Your task to perform on an android device: snooze an email in the gmail app Image 0: 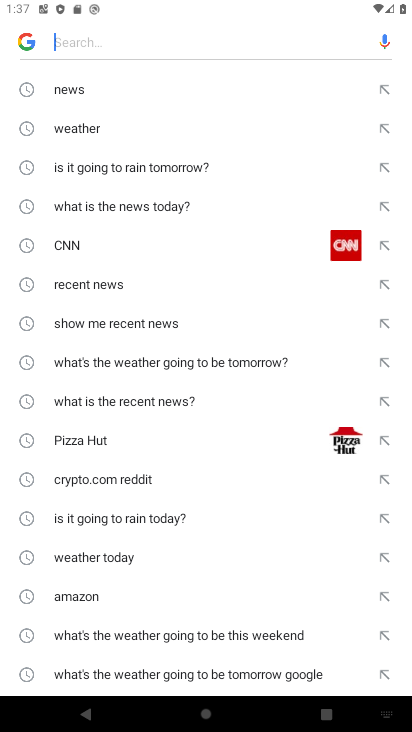
Step 0: task complete